Your task to perform on an android device: toggle wifi Image 0: 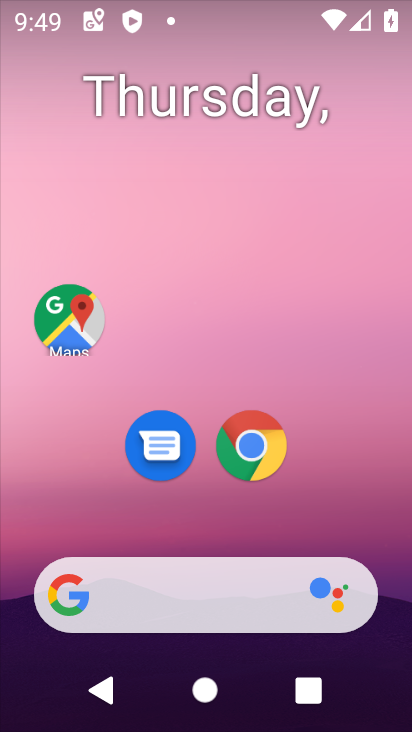
Step 0: drag from (237, 451) to (258, 133)
Your task to perform on an android device: toggle wifi Image 1: 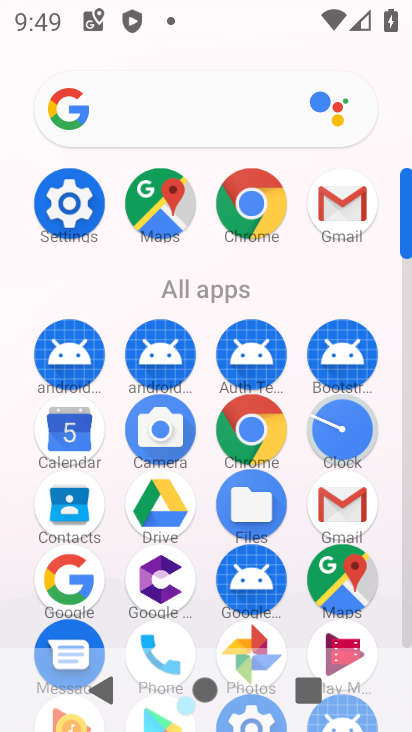
Step 1: click (63, 199)
Your task to perform on an android device: toggle wifi Image 2: 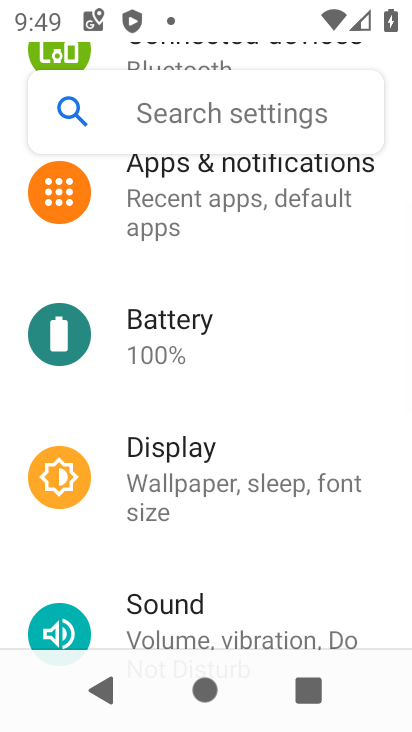
Step 2: drag from (233, 236) to (250, 551)
Your task to perform on an android device: toggle wifi Image 3: 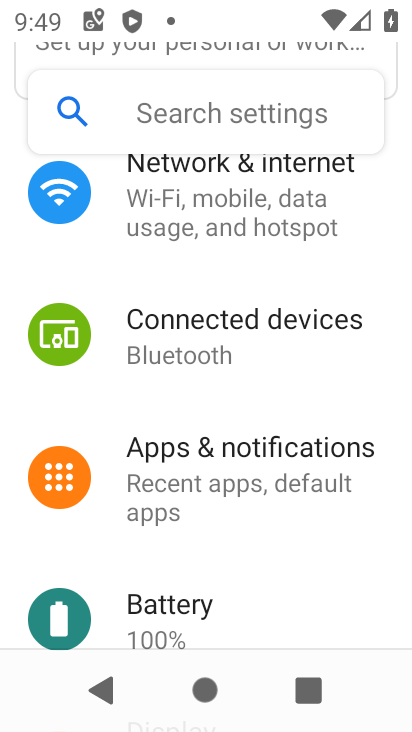
Step 3: click (253, 213)
Your task to perform on an android device: toggle wifi Image 4: 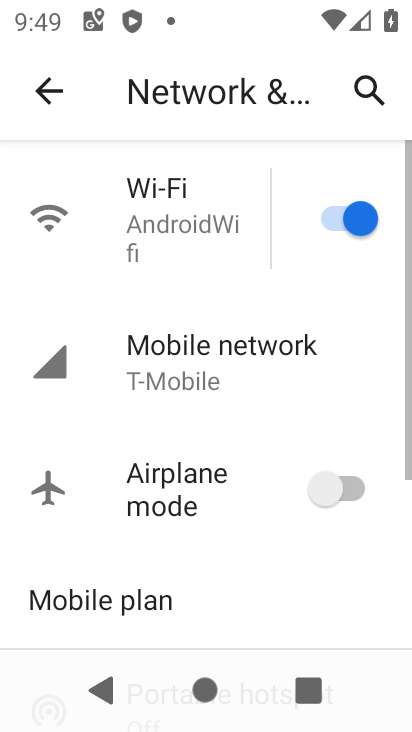
Step 4: click (338, 217)
Your task to perform on an android device: toggle wifi Image 5: 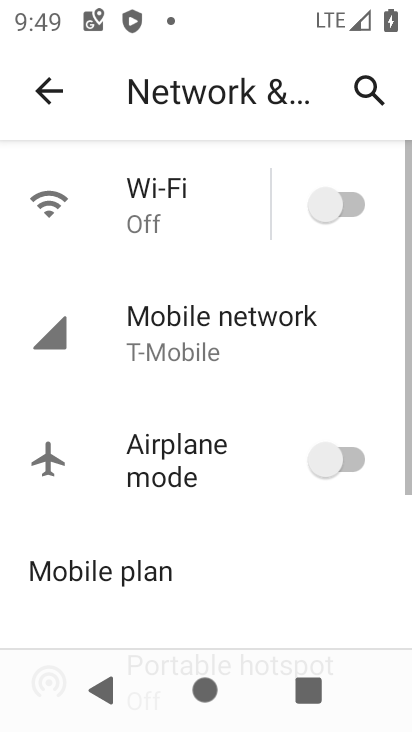
Step 5: task complete